Your task to perform on an android device: install app "Facebook Messenger" Image 0: 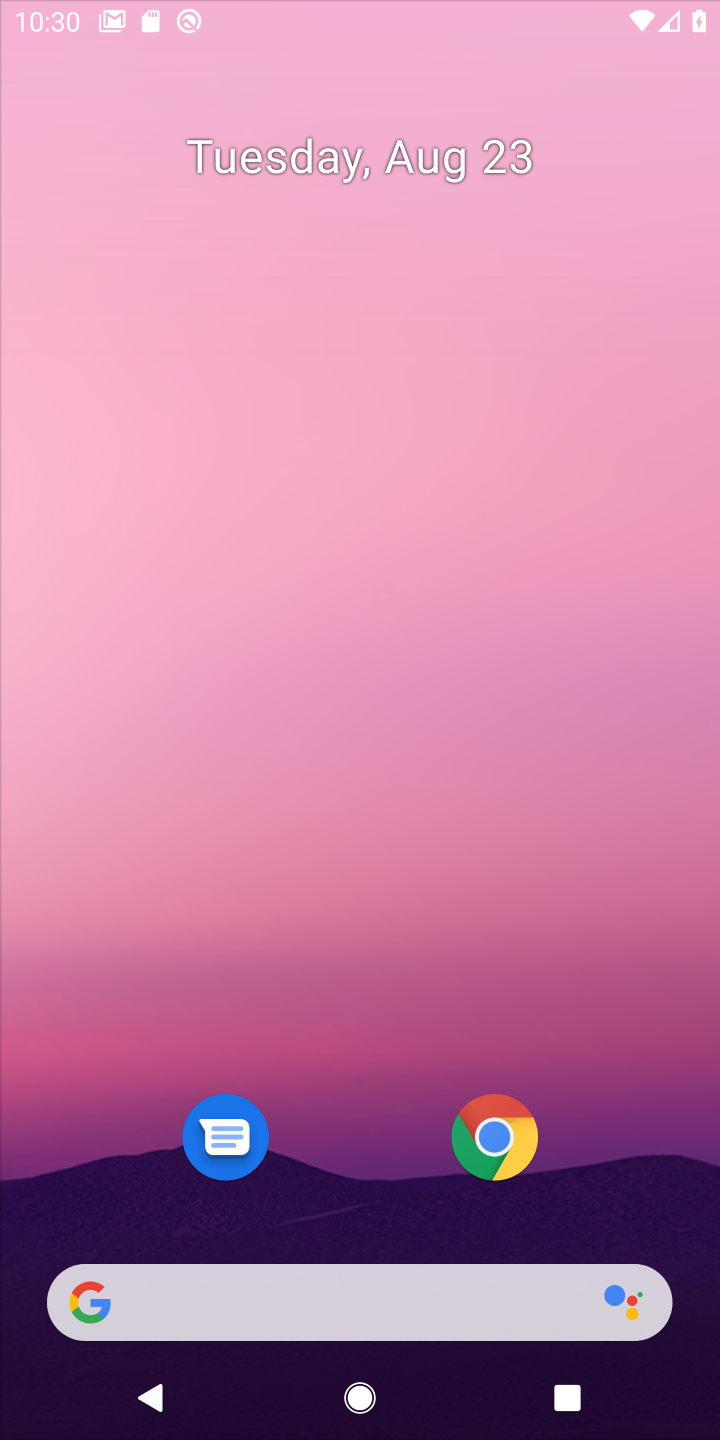
Step 0: click (250, 88)
Your task to perform on an android device: install app "Facebook Messenger" Image 1: 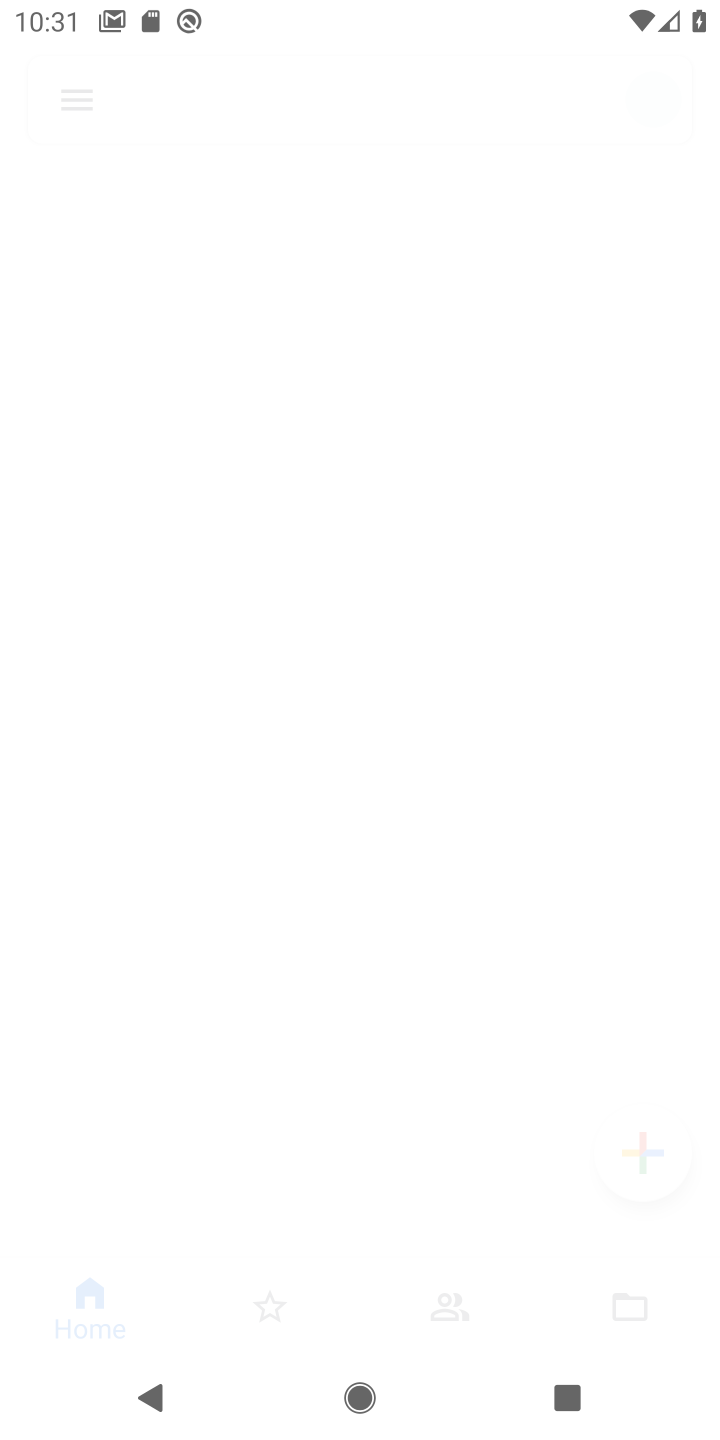
Step 1: press home button
Your task to perform on an android device: install app "Facebook Messenger" Image 2: 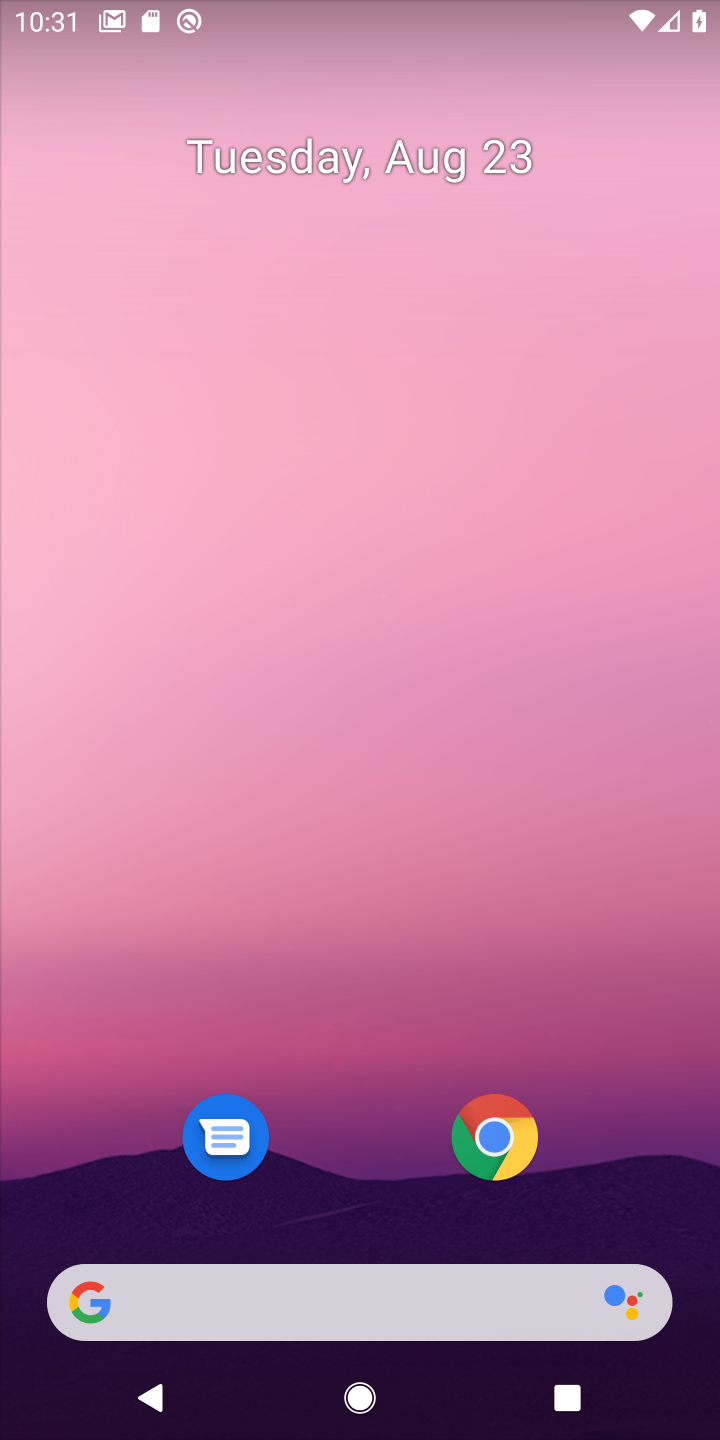
Step 2: drag from (351, 1184) to (404, 274)
Your task to perform on an android device: install app "Facebook Messenger" Image 3: 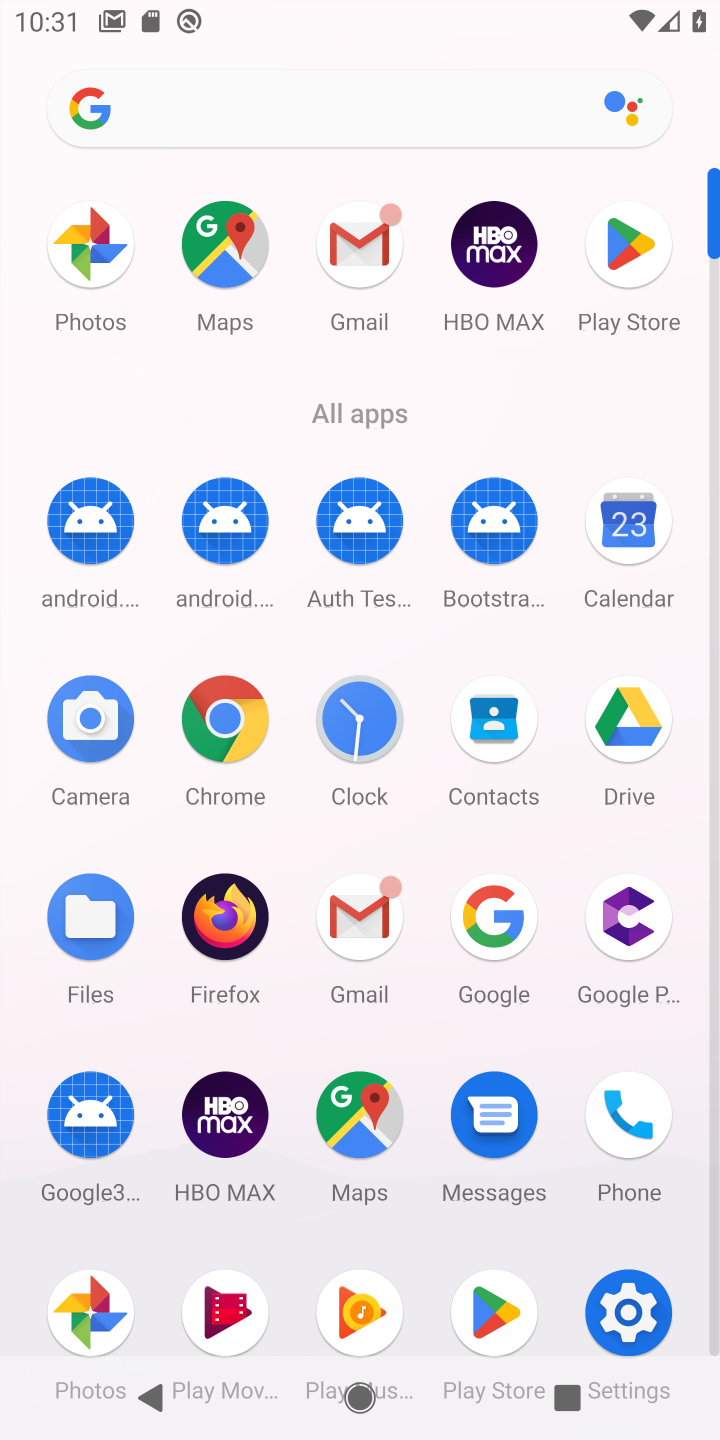
Step 3: click (622, 267)
Your task to perform on an android device: install app "Facebook Messenger" Image 4: 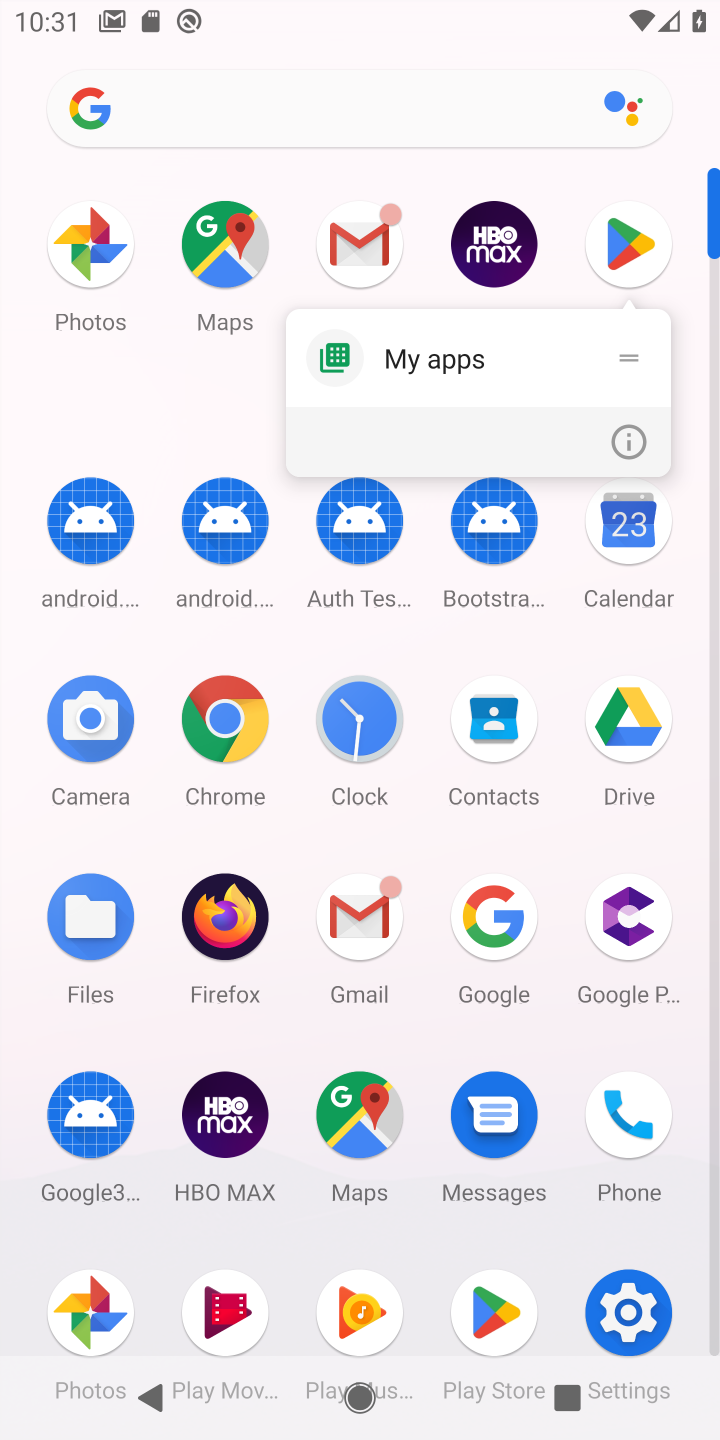
Step 4: click (638, 244)
Your task to perform on an android device: install app "Facebook Messenger" Image 5: 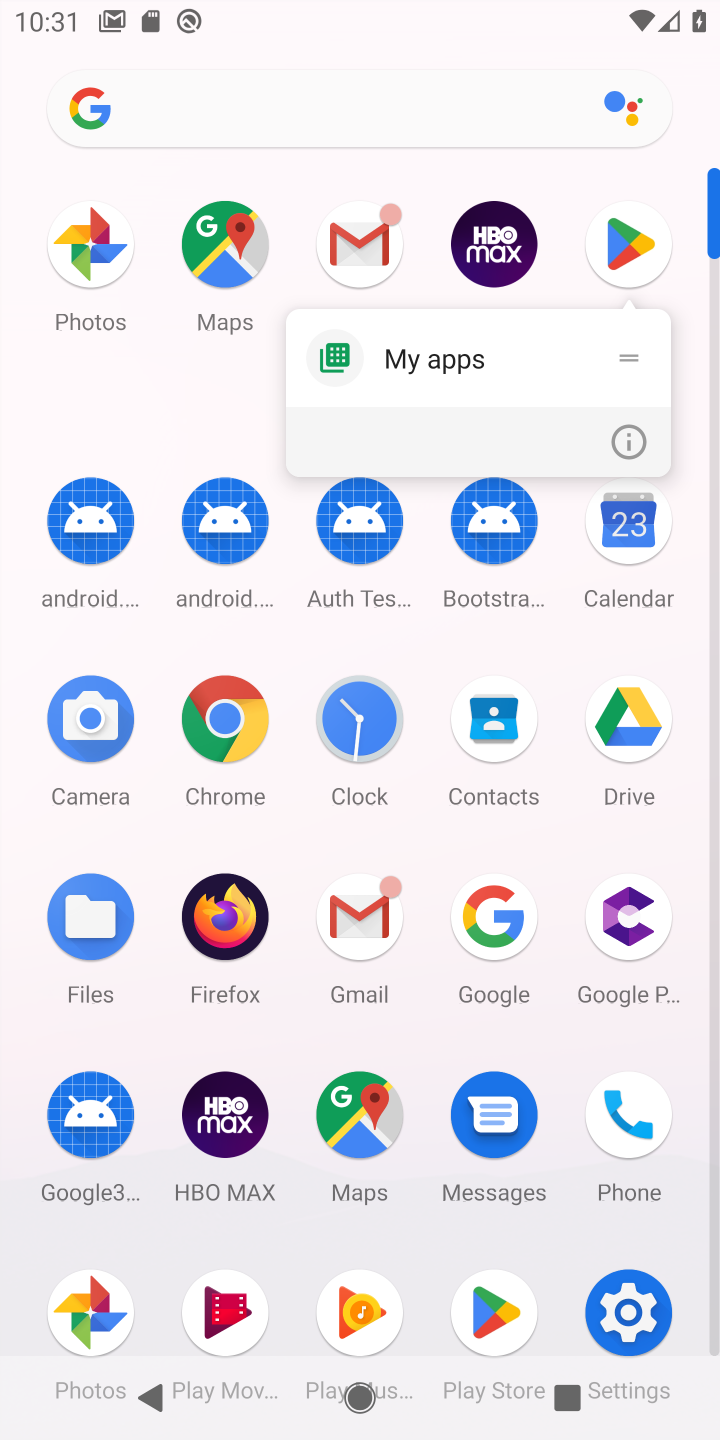
Step 5: click (632, 256)
Your task to perform on an android device: install app "Facebook Messenger" Image 6: 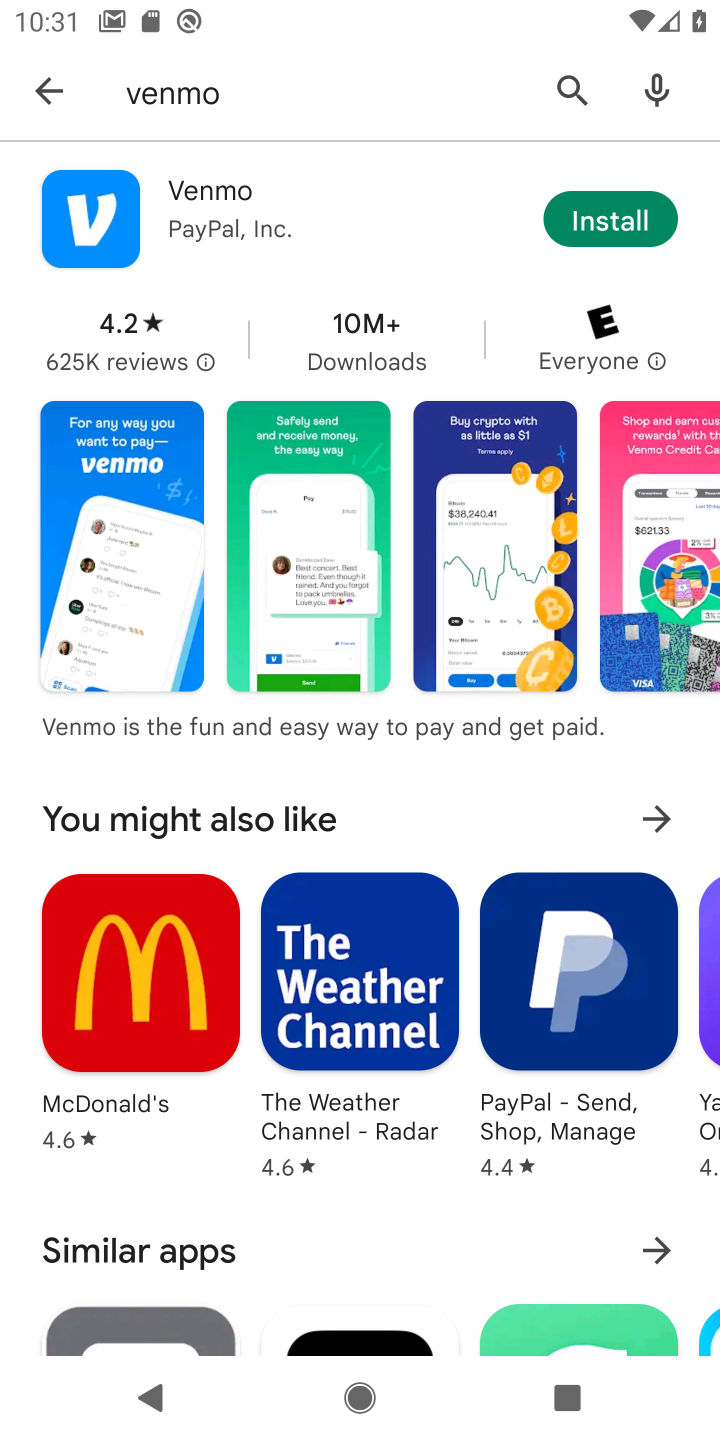
Step 6: click (206, 96)
Your task to perform on an android device: install app "Facebook Messenger" Image 7: 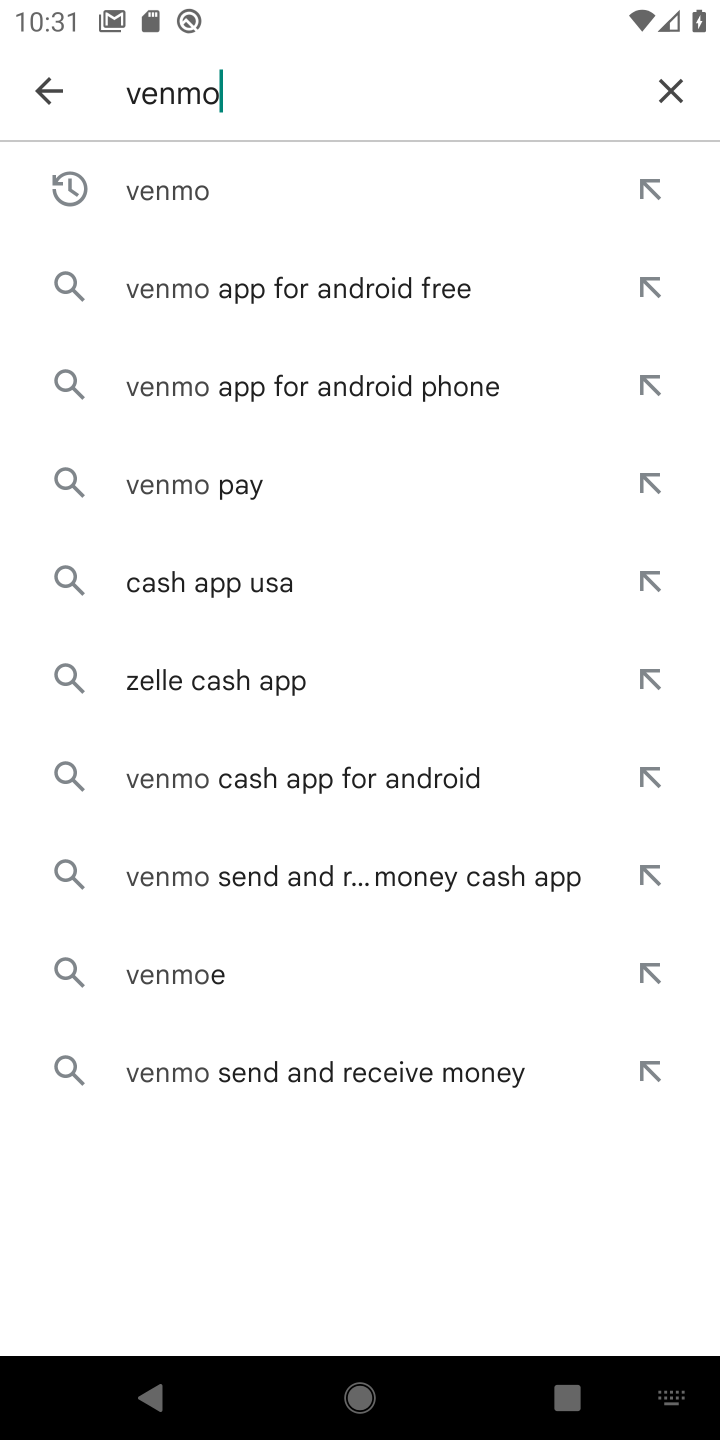
Step 7: click (654, 78)
Your task to perform on an android device: install app "Facebook Messenger" Image 8: 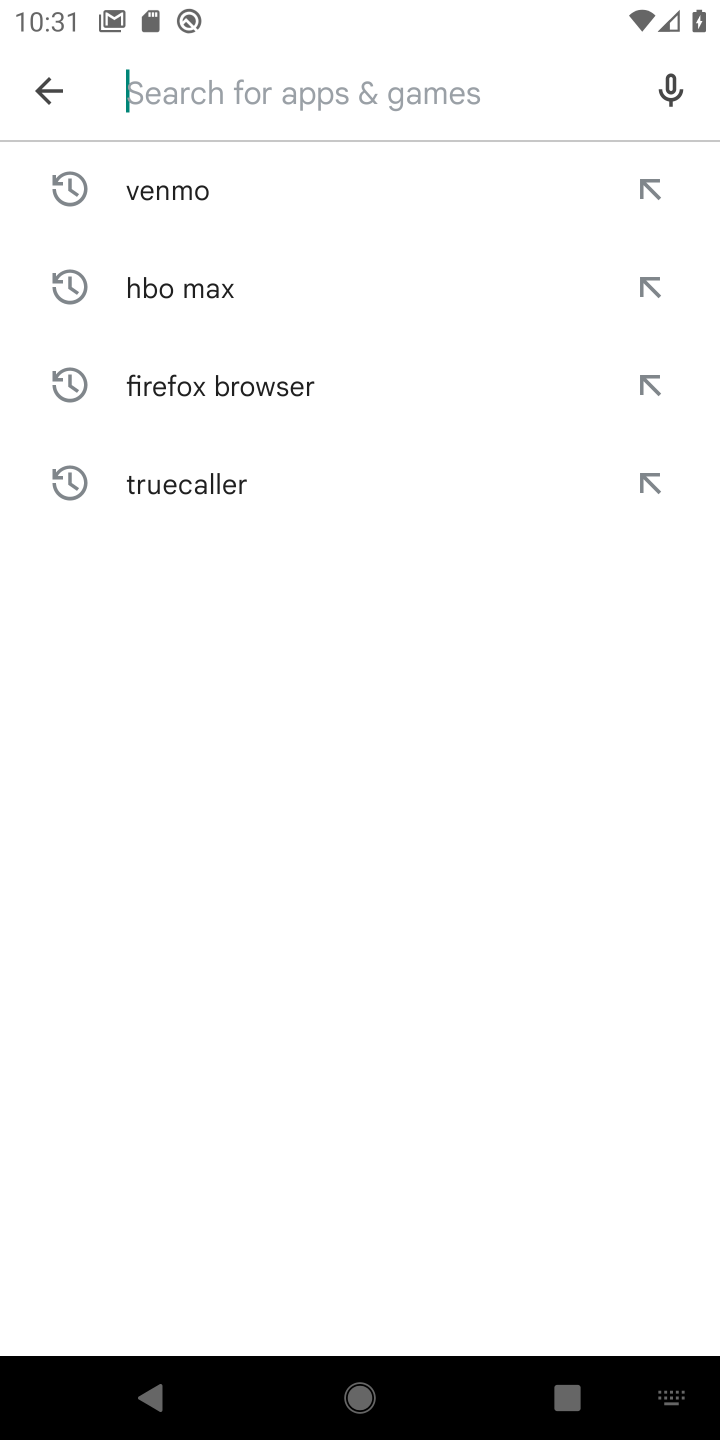
Step 8: type "facebook messenger"
Your task to perform on an android device: install app "Facebook Messenger" Image 9: 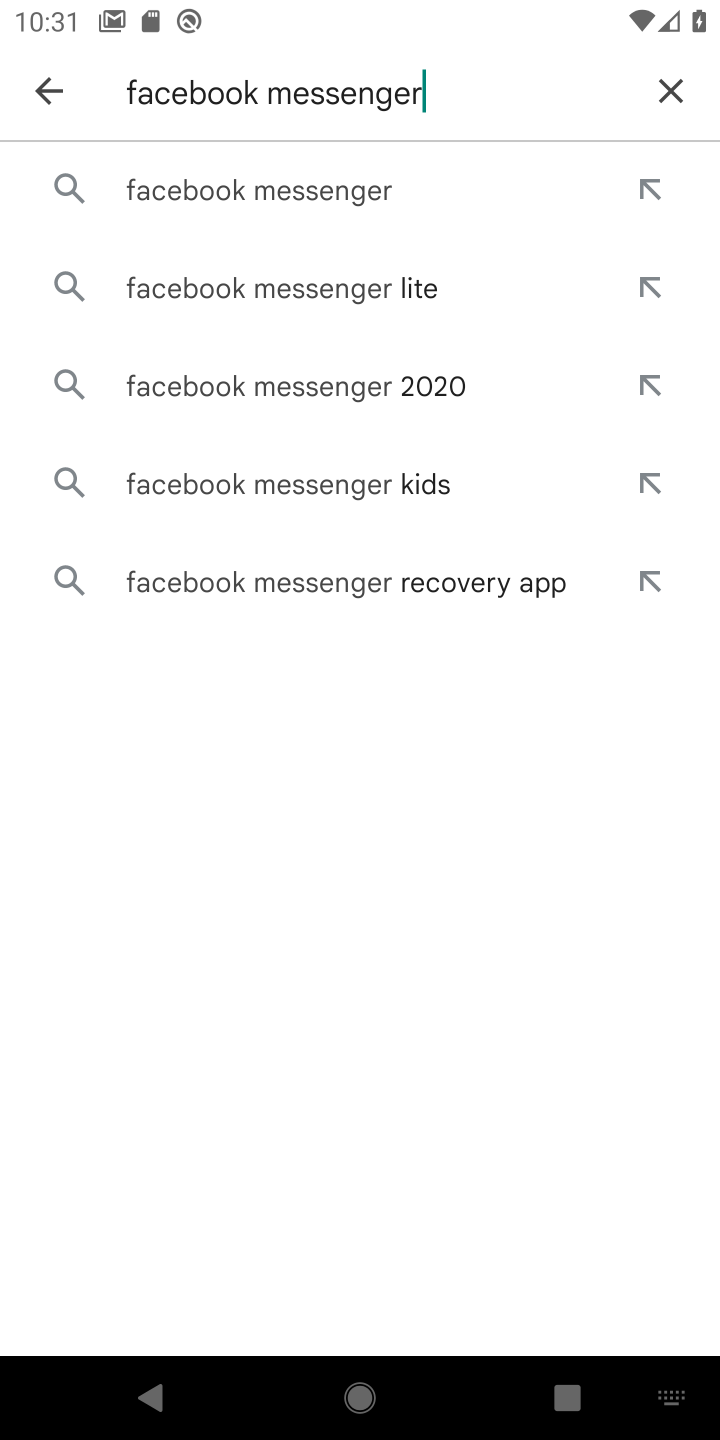
Step 9: click (249, 193)
Your task to perform on an android device: install app "Facebook Messenger" Image 10: 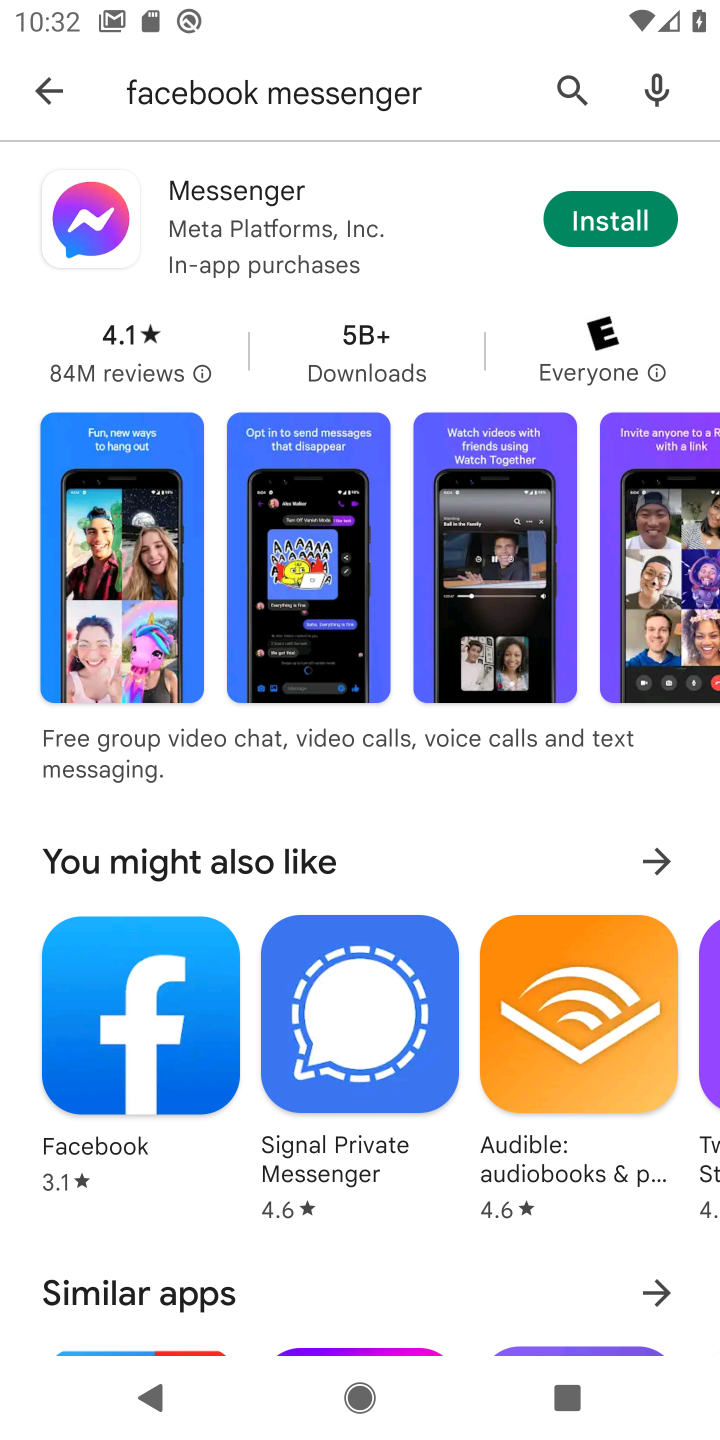
Step 10: click (631, 204)
Your task to perform on an android device: install app "Facebook Messenger" Image 11: 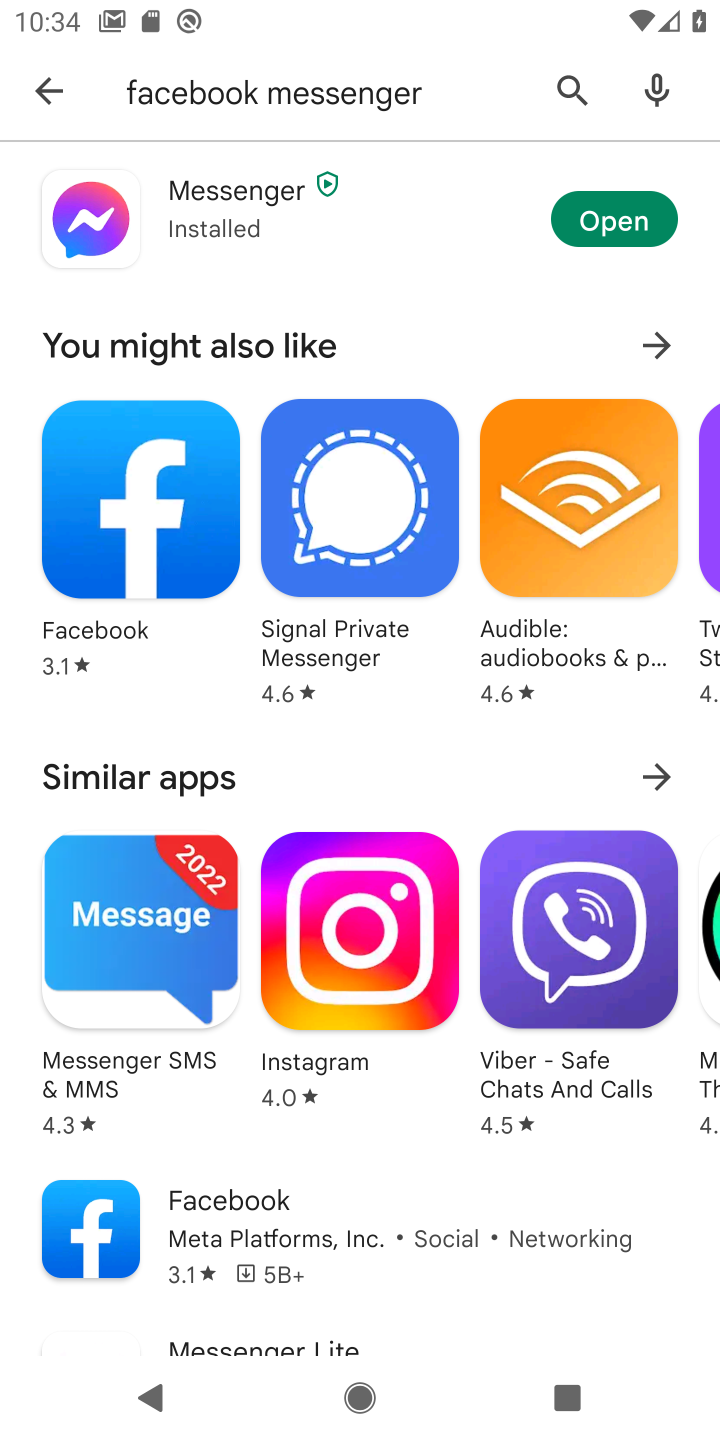
Step 11: task complete